Your task to perform on an android device: add a contact Image 0: 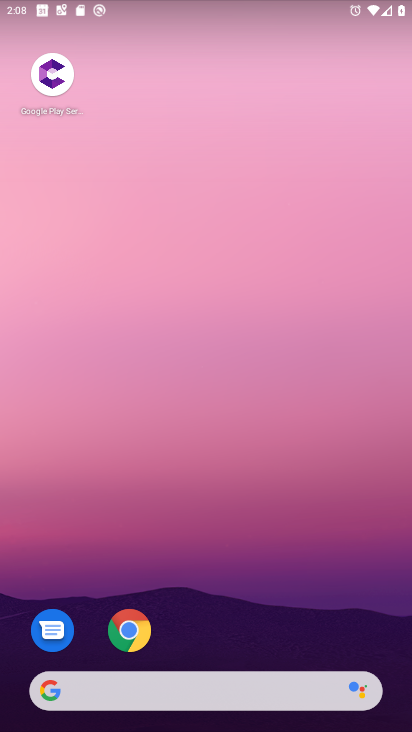
Step 0: drag from (337, 581) to (279, 215)
Your task to perform on an android device: add a contact Image 1: 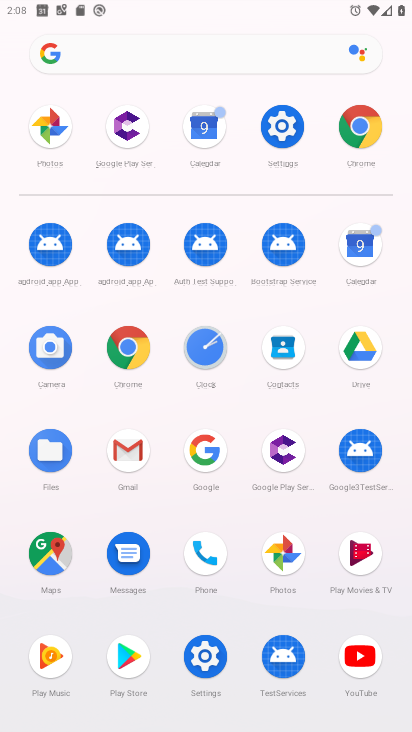
Step 1: click (209, 559)
Your task to perform on an android device: add a contact Image 2: 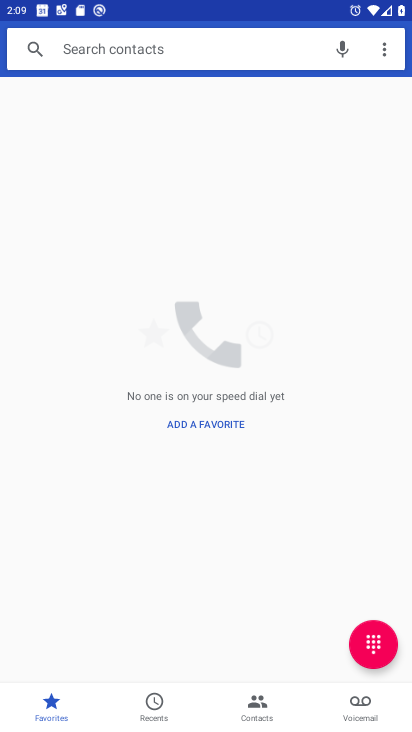
Step 2: click (238, 723)
Your task to perform on an android device: add a contact Image 3: 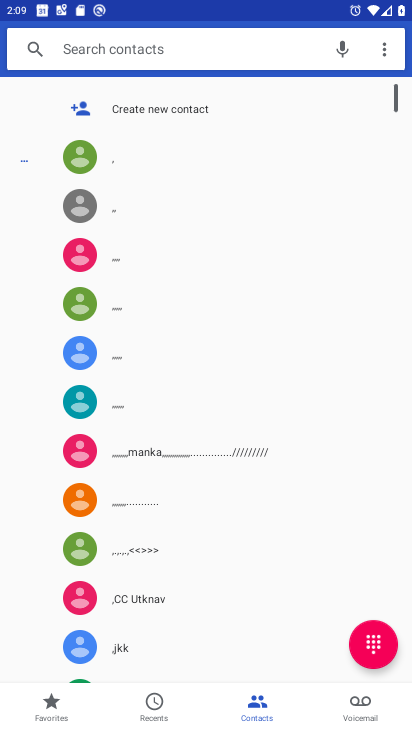
Step 3: click (168, 97)
Your task to perform on an android device: add a contact Image 4: 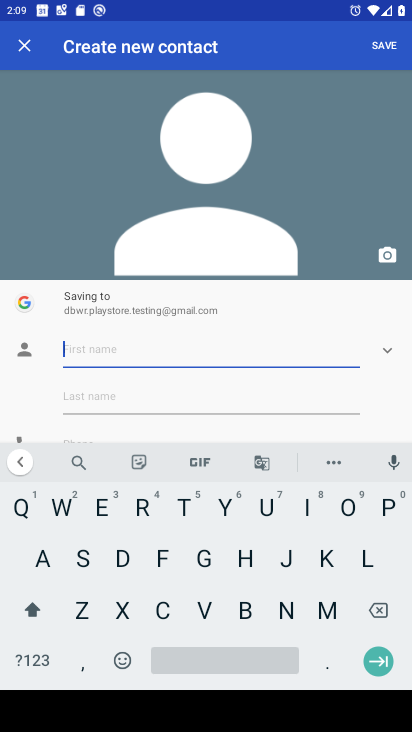
Step 4: click (212, 557)
Your task to perform on an android device: add a contact Image 5: 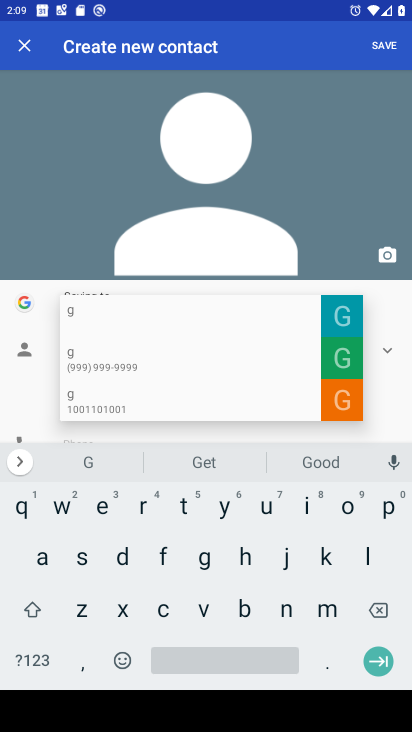
Step 5: click (268, 514)
Your task to perform on an android device: add a contact Image 6: 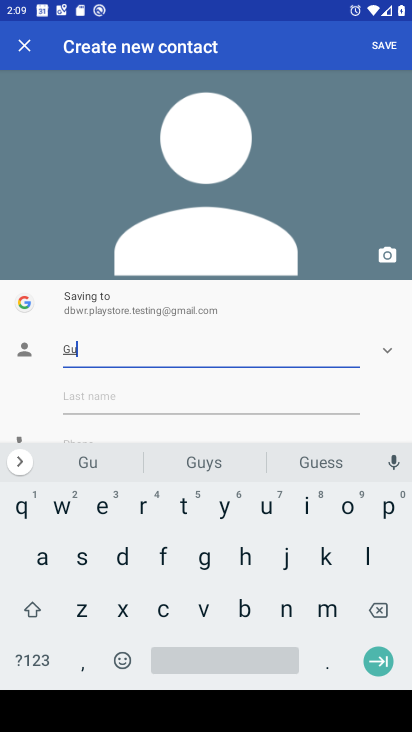
Step 6: click (278, 606)
Your task to perform on an android device: add a contact Image 7: 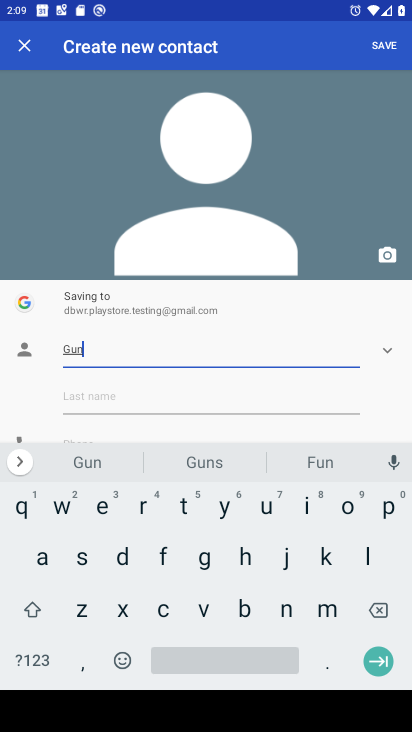
Step 7: click (141, 432)
Your task to perform on an android device: add a contact Image 8: 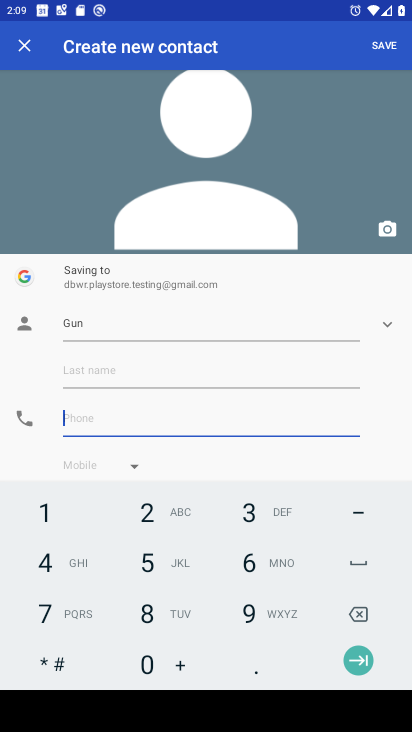
Step 8: click (165, 604)
Your task to perform on an android device: add a contact Image 9: 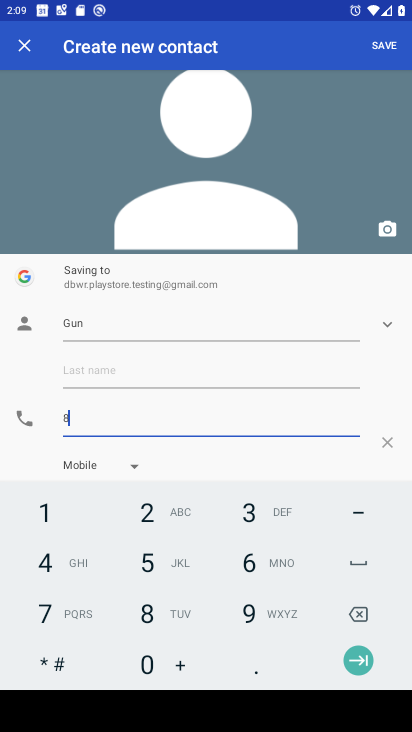
Step 9: click (63, 583)
Your task to perform on an android device: add a contact Image 10: 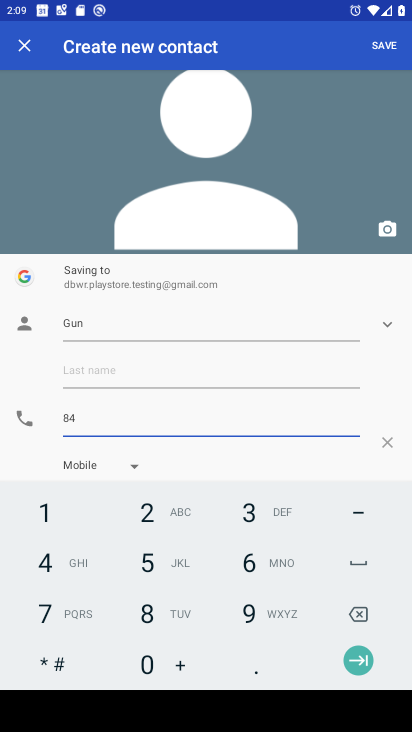
Step 10: click (150, 563)
Your task to perform on an android device: add a contact Image 11: 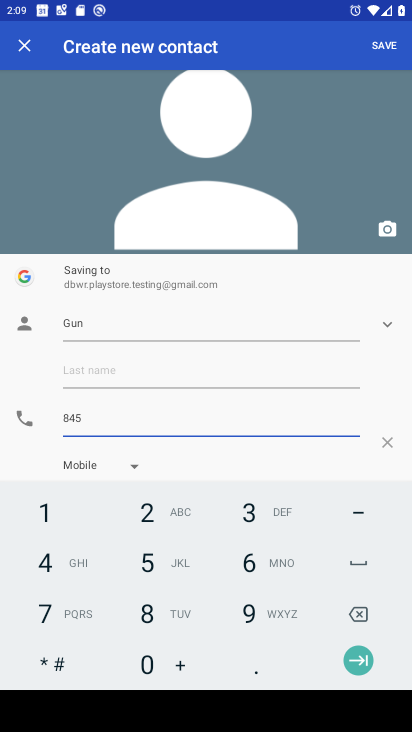
Step 11: click (136, 529)
Your task to perform on an android device: add a contact Image 12: 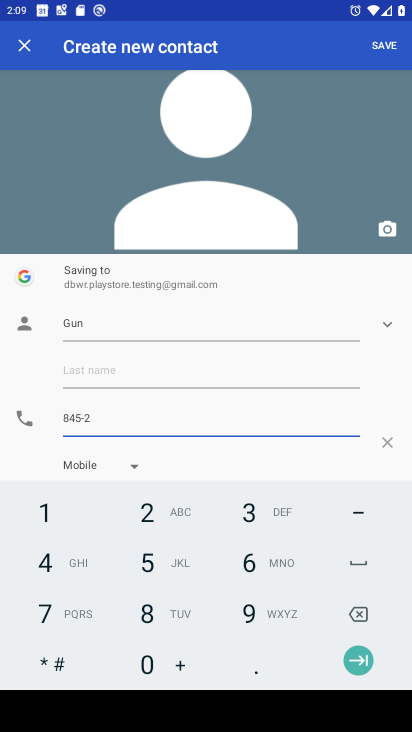
Step 12: click (44, 573)
Your task to perform on an android device: add a contact Image 13: 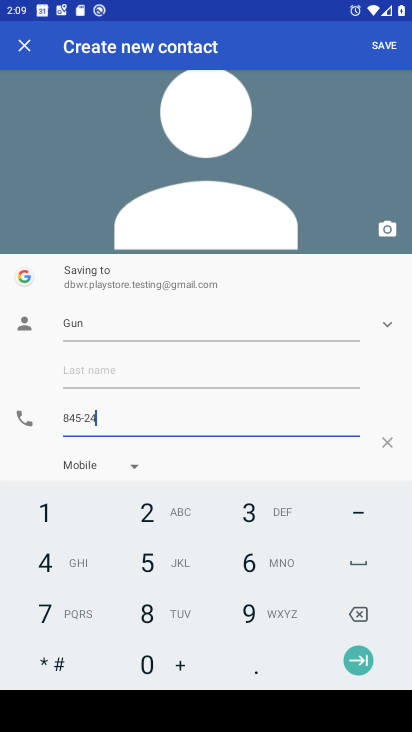
Step 13: click (246, 574)
Your task to perform on an android device: add a contact Image 14: 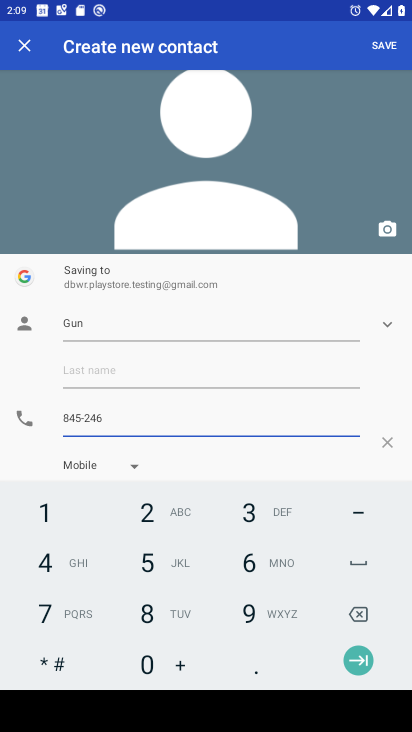
Step 14: click (144, 621)
Your task to perform on an android device: add a contact Image 15: 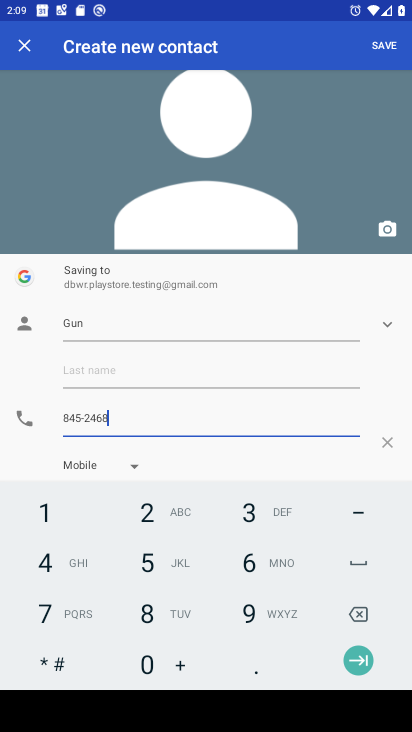
Step 15: click (380, 43)
Your task to perform on an android device: add a contact Image 16: 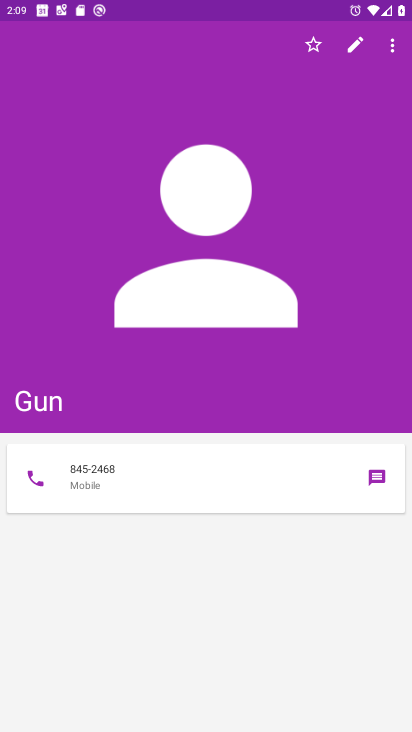
Step 16: task complete